Your task to perform on an android device: Open Google Chrome Image 0: 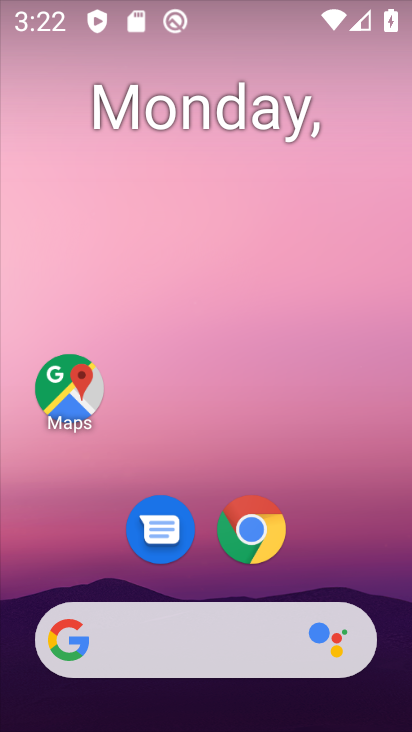
Step 0: click (258, 534)
Your task to perform on an android device: Open Google Chrome Image 1: 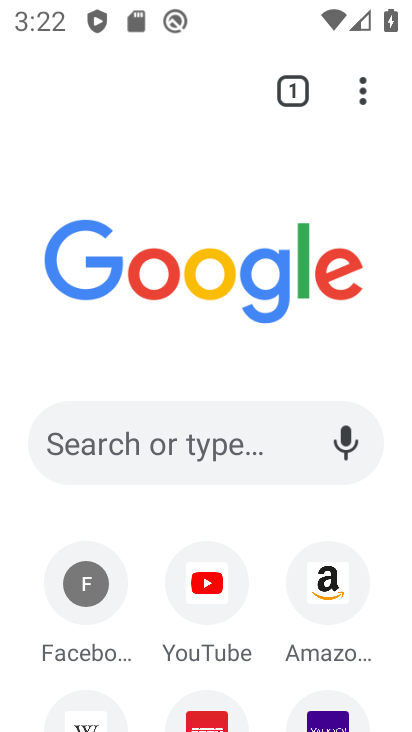
Step 1: task complete